Your task to perform on an android device: find snoozed emails in the gmail app Image 0: 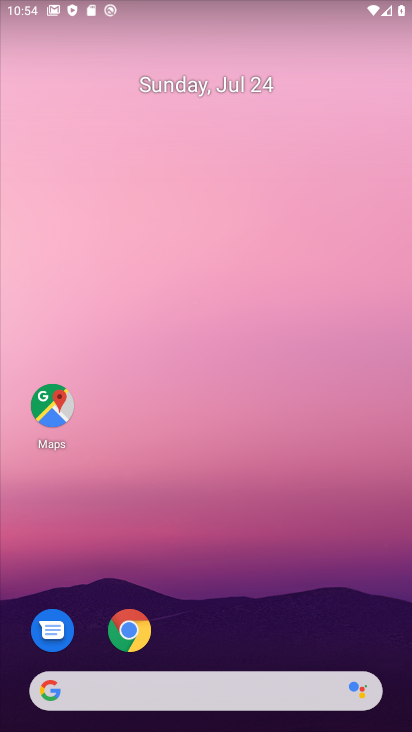
Step 0: drag from (145, 494) to (130, 156)
Your task to perform on an android device: find snoozed emails in the gmail app Image 1: 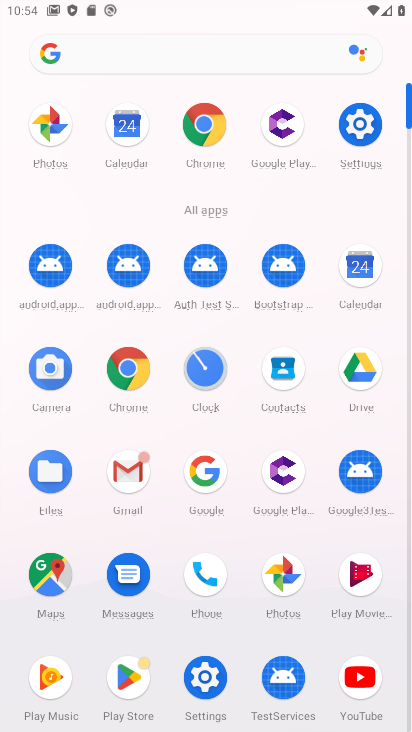
Step 1: click (130, 500)
Your task to perform on an android device: find snoozed emails in the gmail app Image 2: 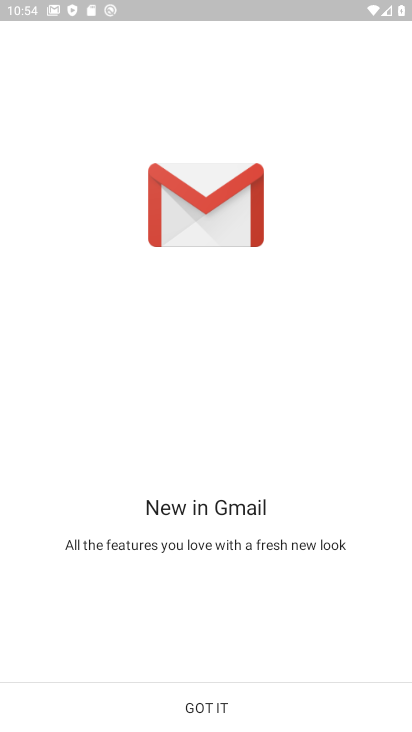
Step 2: click (206, 713)
Your task to perform on an android device: find snoozed emails in the gmail app Image 3: 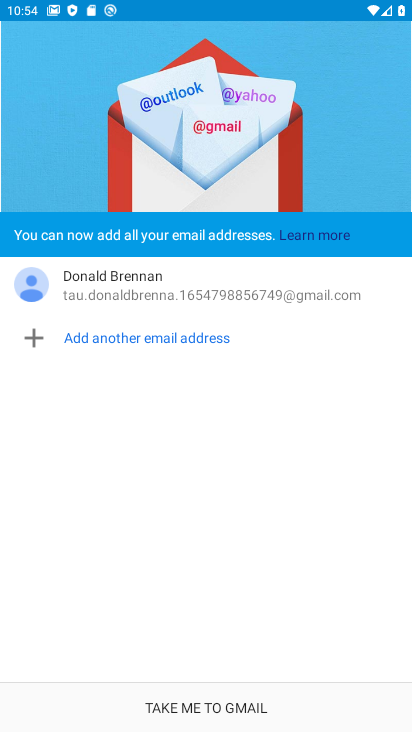
Step 3: click (206, 713)
Your task to perform on an android device: find snoozed emails in the gmail app Image 4: 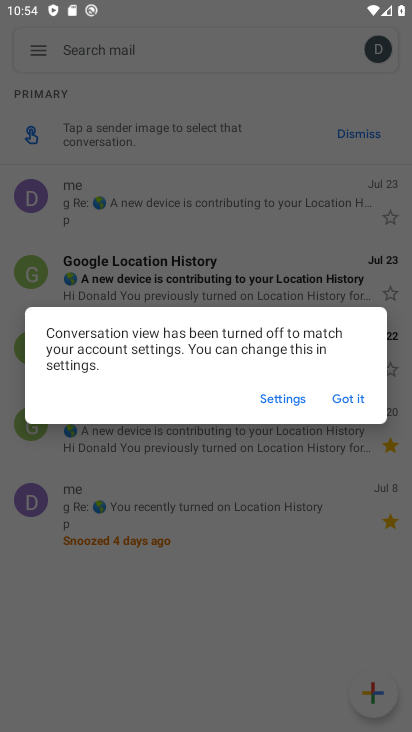
Step 4: click (348, 398)
Your task to perform on an android device: find snoozed emails in the gmail app Image 5: 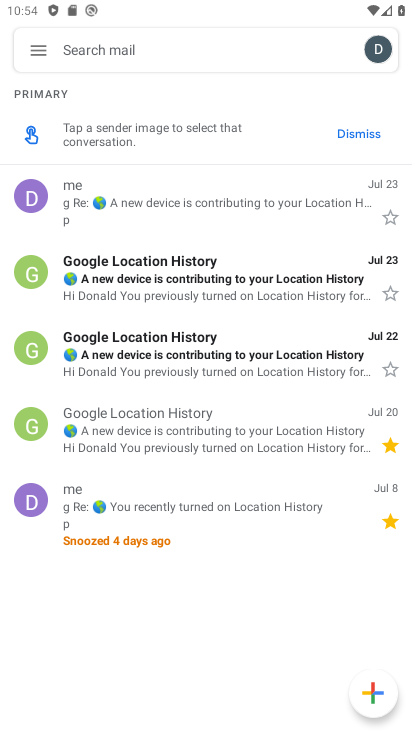
Step 5: click (35, 50)
Your task to perform on an android device: find snoozed emails in the gmail app Image 6: 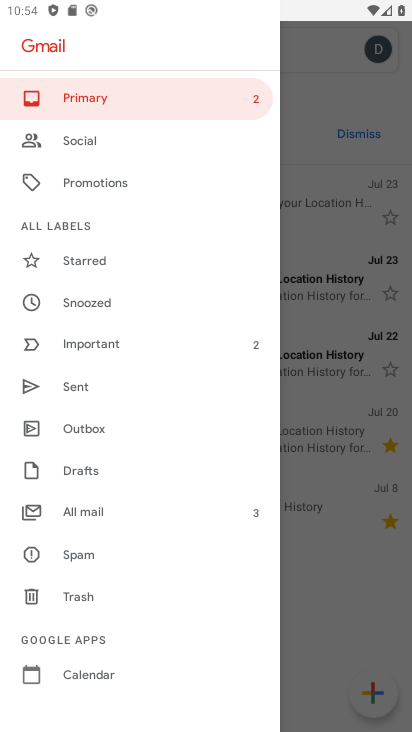
Step 6: click (77, 308)
Your task to perform on an android device: find snoozed emails in the gmail app Image 7: 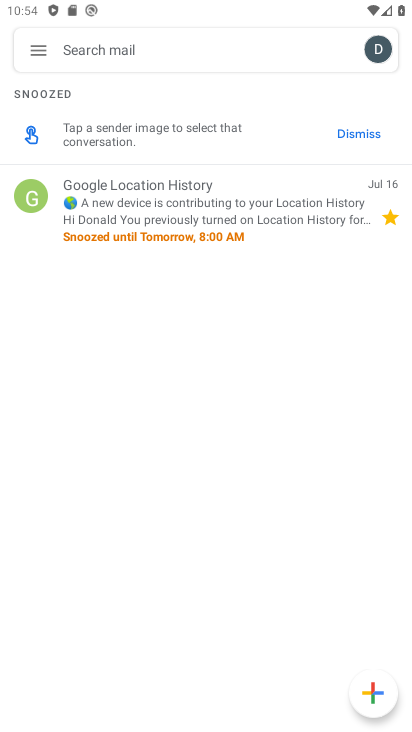
Step 7: task complete